Your task to perform on an android device: toggle translation in the chrome app Image 0: 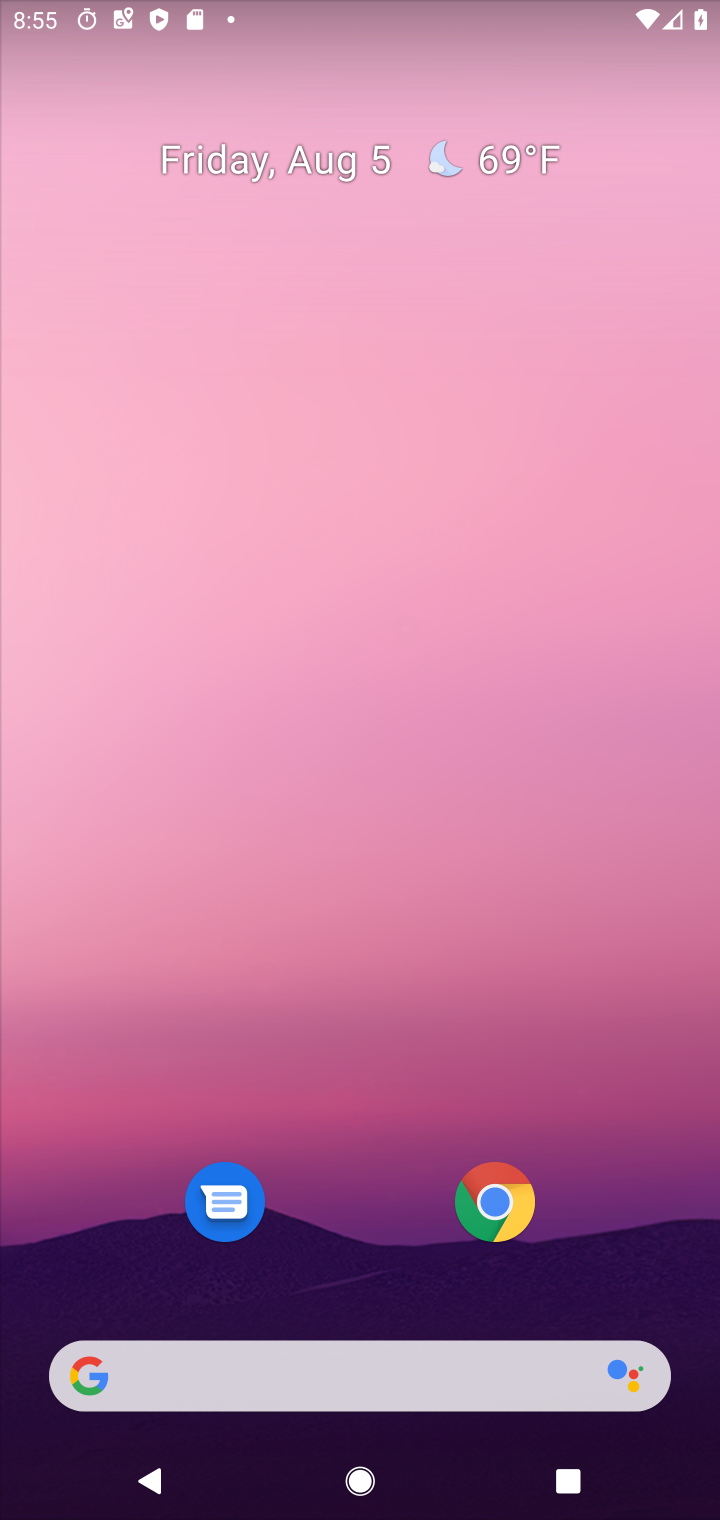
Step 0: click (473, 1181)
Your task to perform on an android device: toggle translation in the chrome app Image 1: 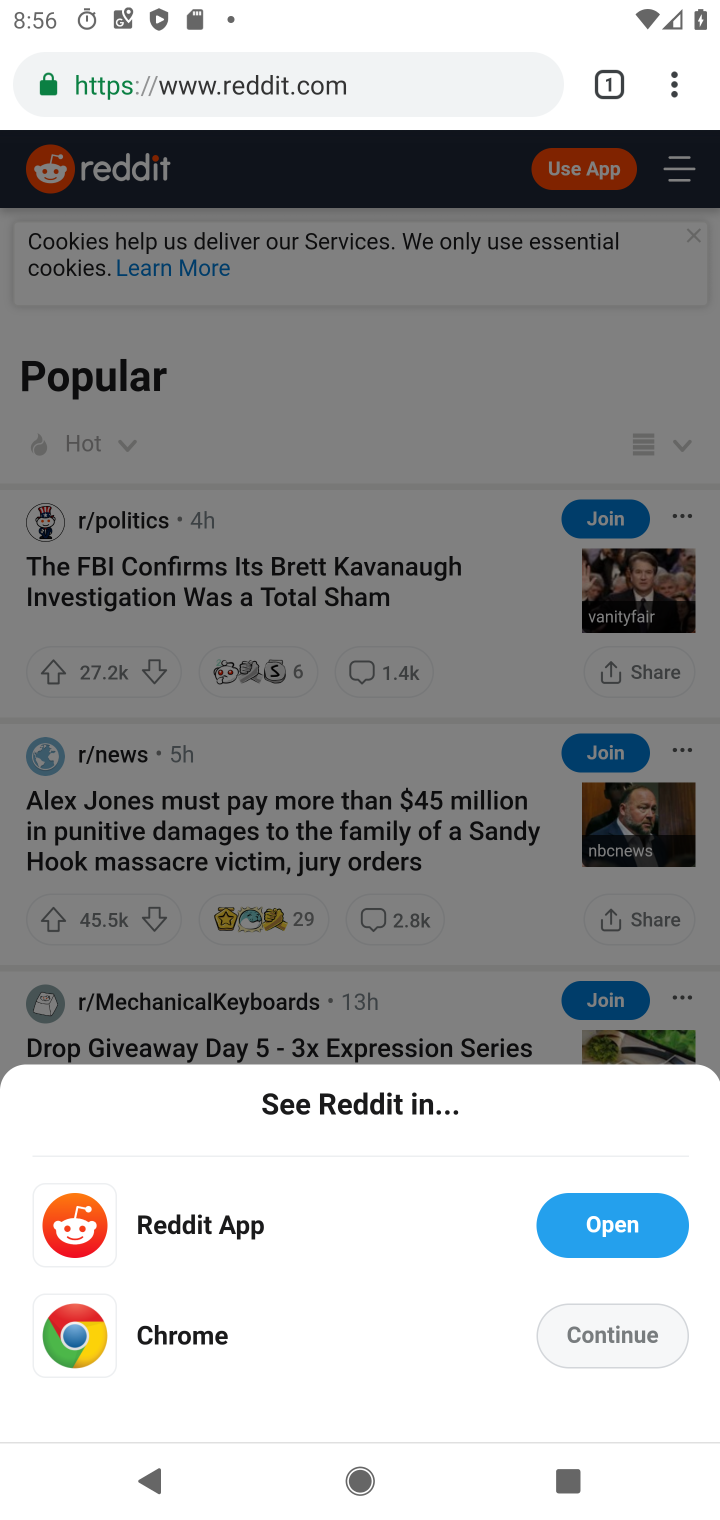
Step 1: click (658, 82)
Your task to perform on an android device: toggle translation in the chrome app Image 2: 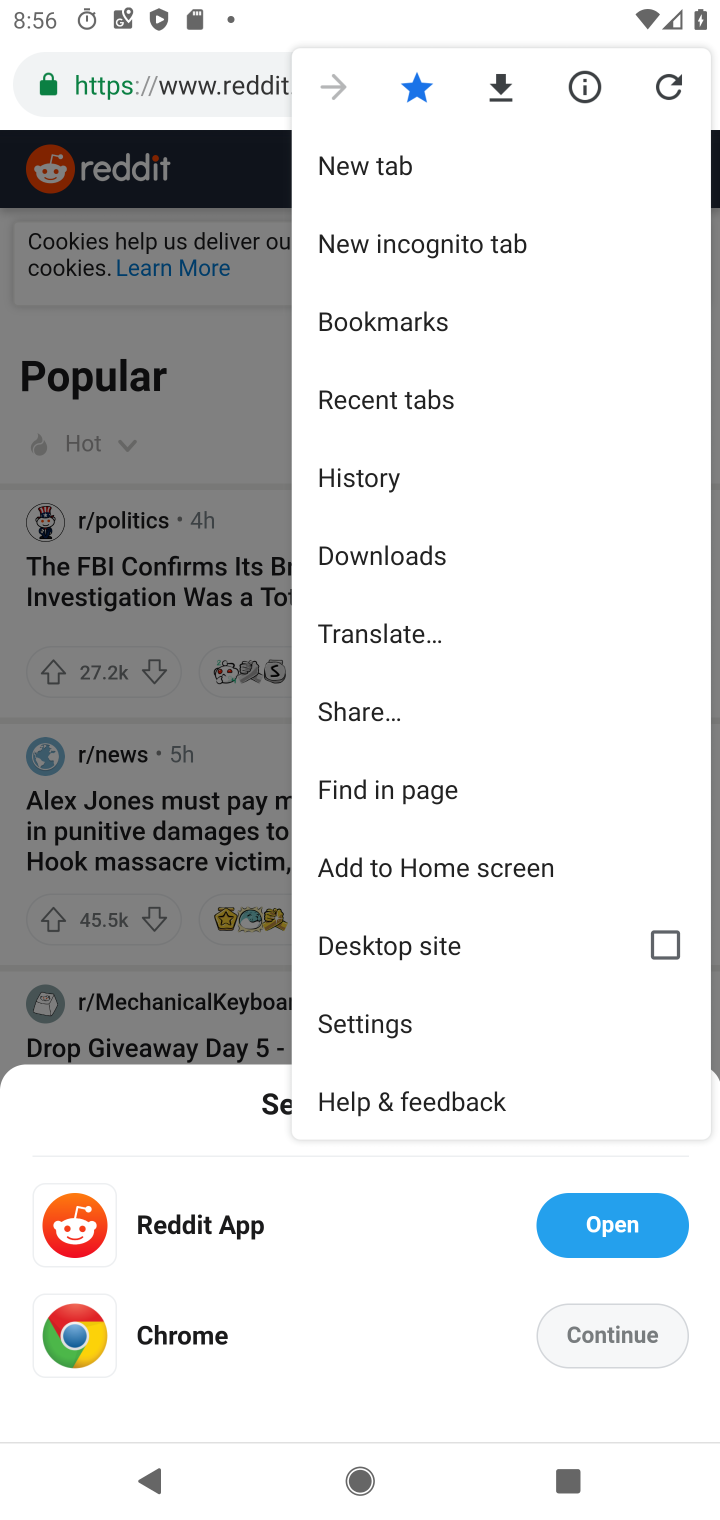
Step 2: click (399, 1003)
Your task to perform on an android device: toggle translation in the chrome app Image 3: 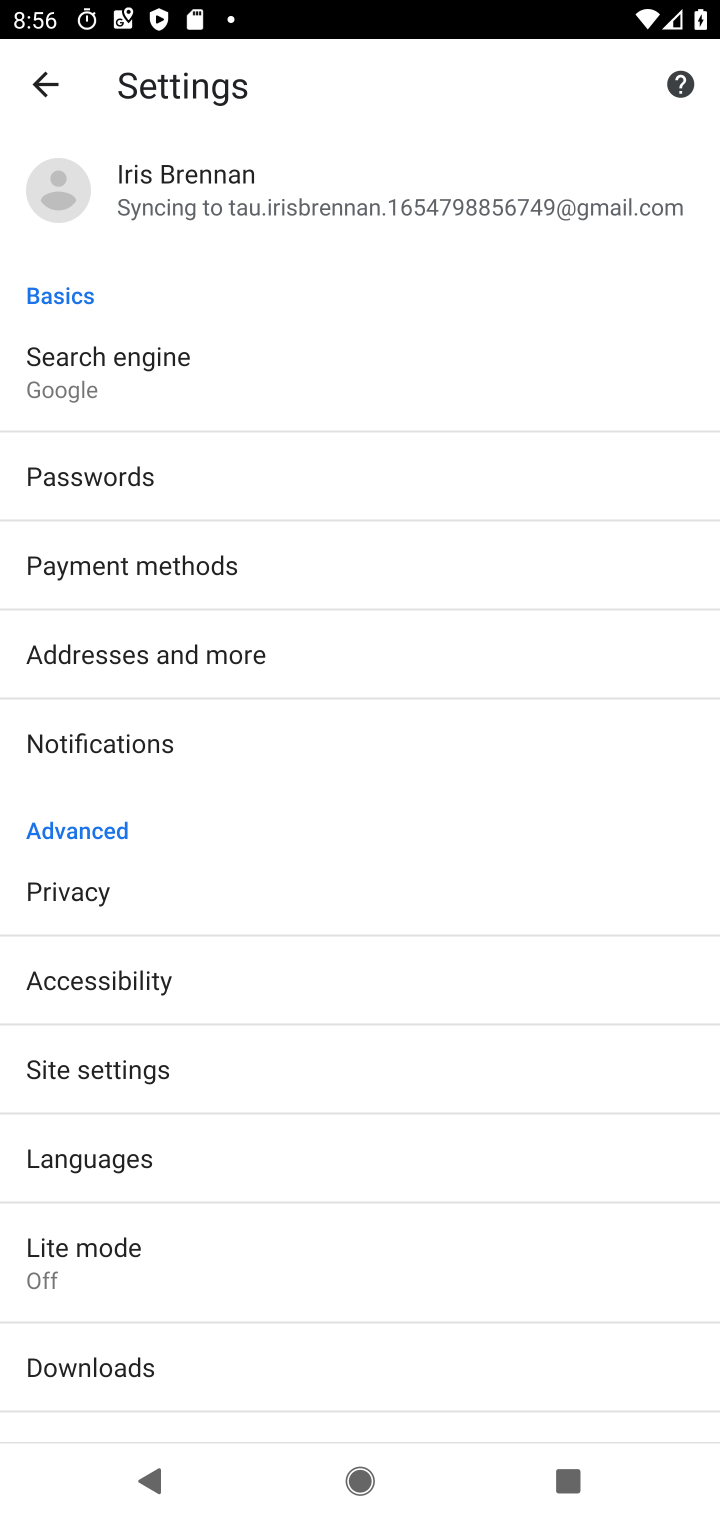
Step 3: click (228, 1137)
Your task to perform on an android device: toggle translation in the chrome app Image 4: 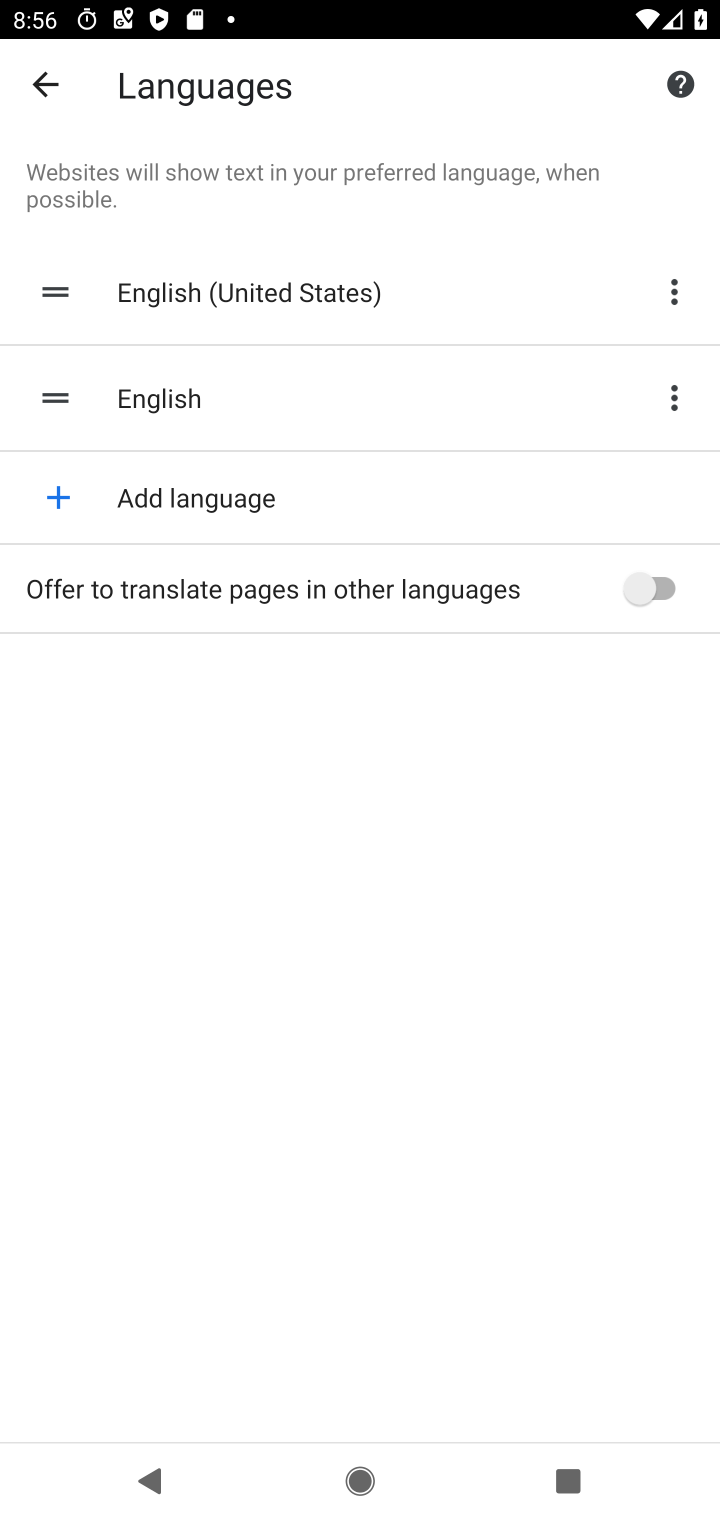
Step 4: click (630, 582)
Your task to perform on an android device: toggle translation in the chrome app Image 5: 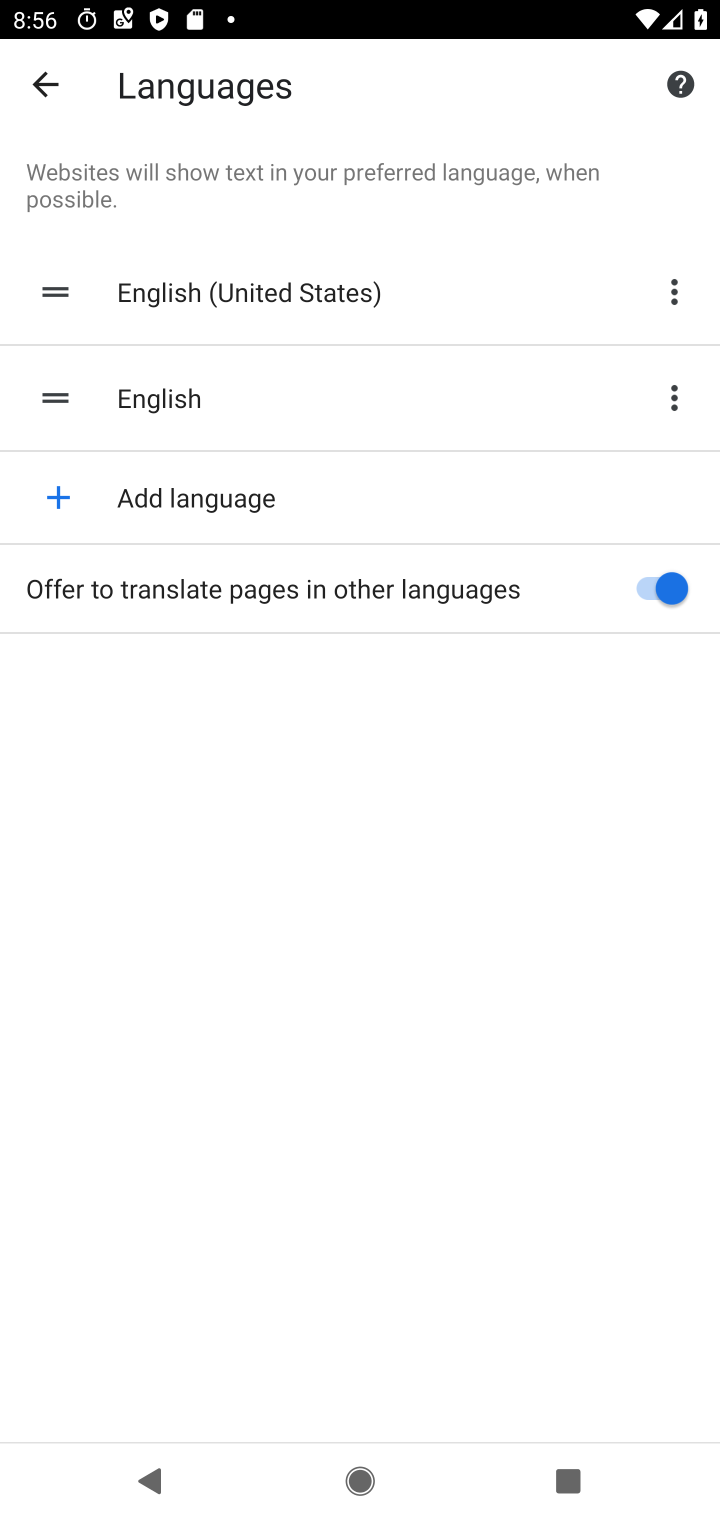
Step 5: task complete